Your task to perform on an android device: set an alarm Image 0: 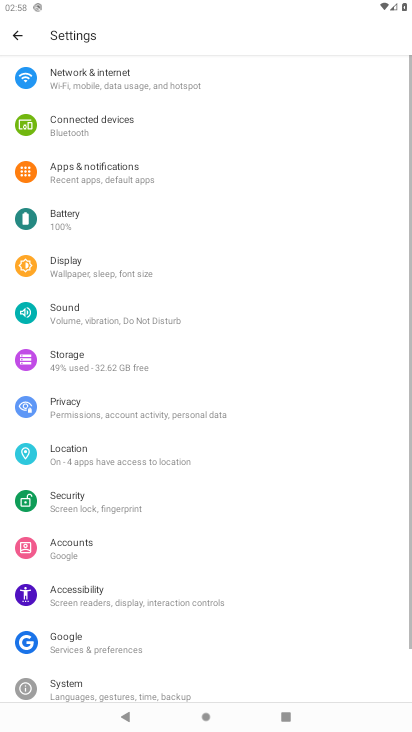
Step 0: press home button
Your task to perform on an android device: set an alarm Image 1: 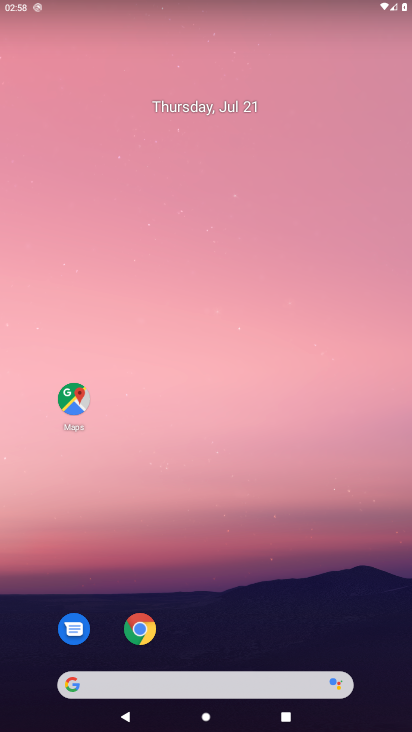
Step 1: drag from (61, 659) to (152, 243)
Your task to perform on an android device: set an alarm Image 2: 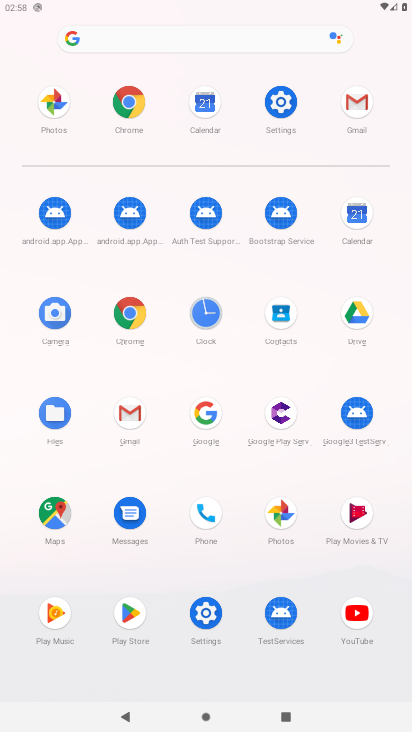
Step 2: click (211, 329)
Your task to perform on an android device: set an alarm Image 3: 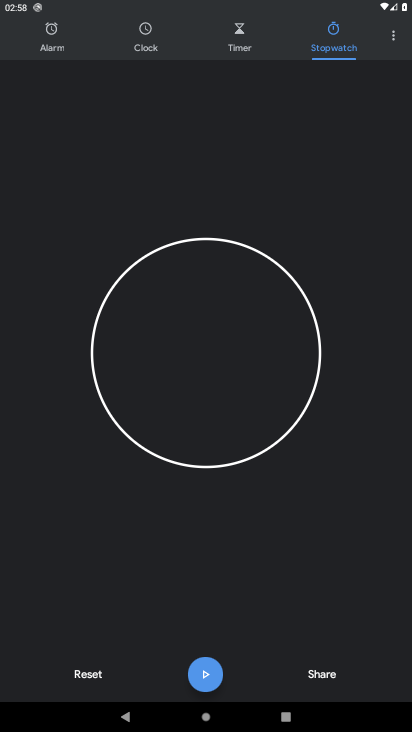
Step 3: click (43, 45)
Your task to perform on an android device: set an alarm Image 4: 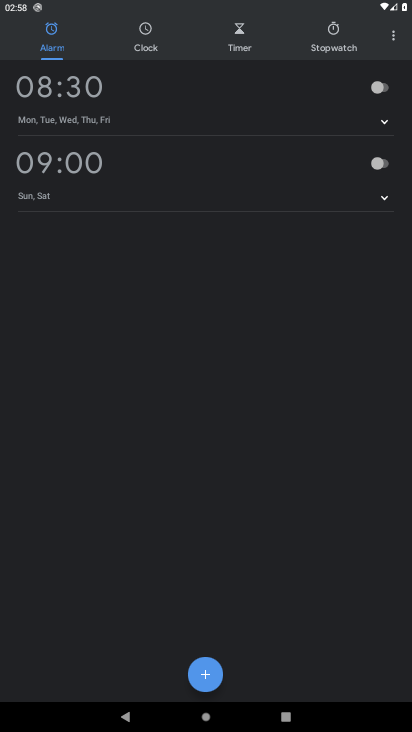
Step 4: task complete